Your task to perform on an android device: Open the map Image 0: 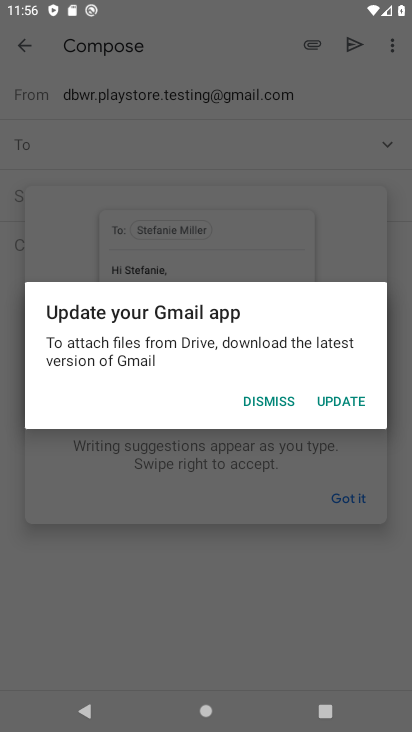
Step 0: click (349, 495)
Your task to perform on an android device: Open the map Image 1: 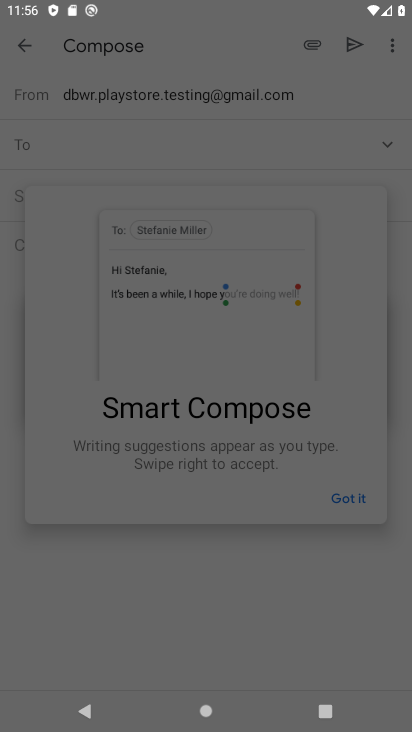
Step 1: press back button
Your task to perform on an android device: Open the map Image 2: 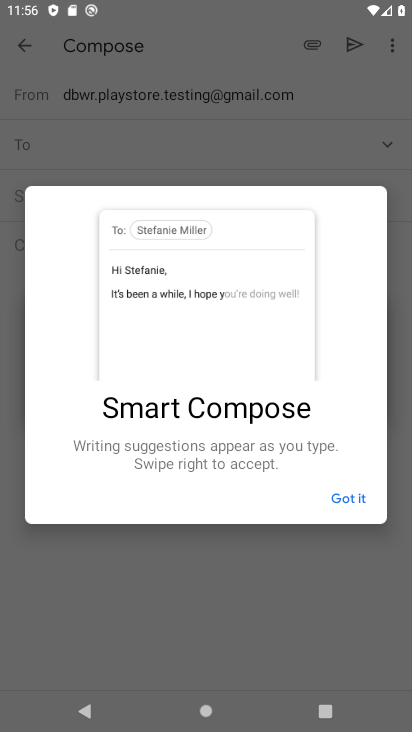
Step 2: click (343, 498)
Your task to perform on an android device: Open the map Image 3: 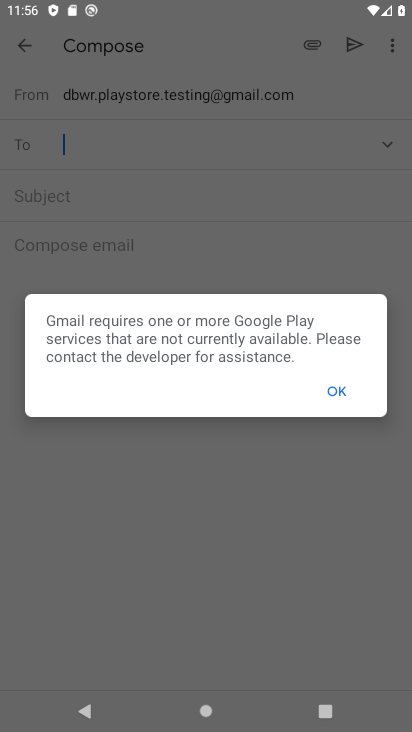
Step 3: click (335, 392)
Your task to perform on an android device: Open the map Image 4: 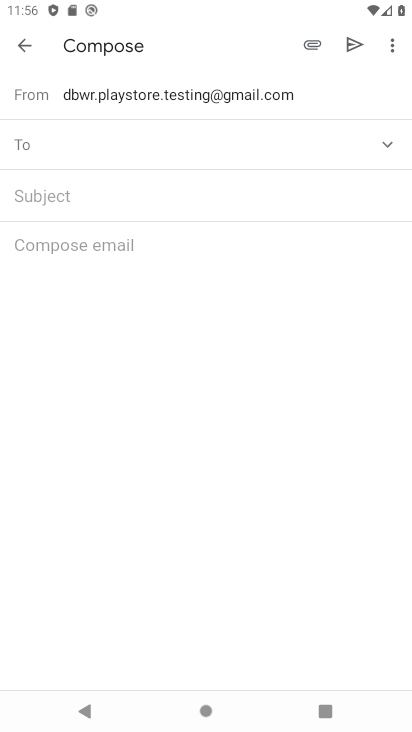
Step 4: click (18, 42)
Your task to perform on an android device: Open the map Image 5: 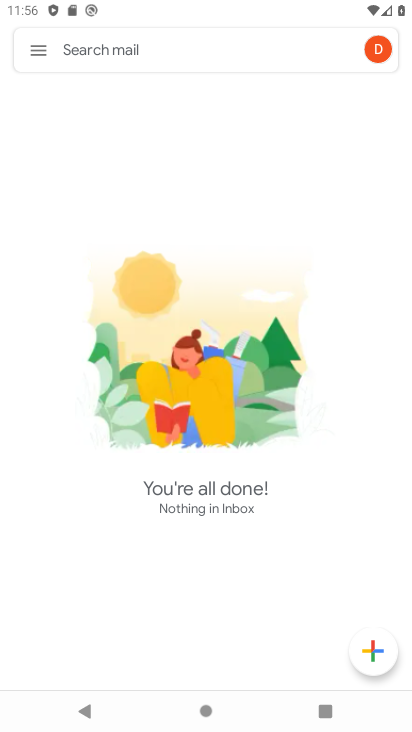
Step 5: press home button
Your task to perform on an android device: Open the map Image 6: 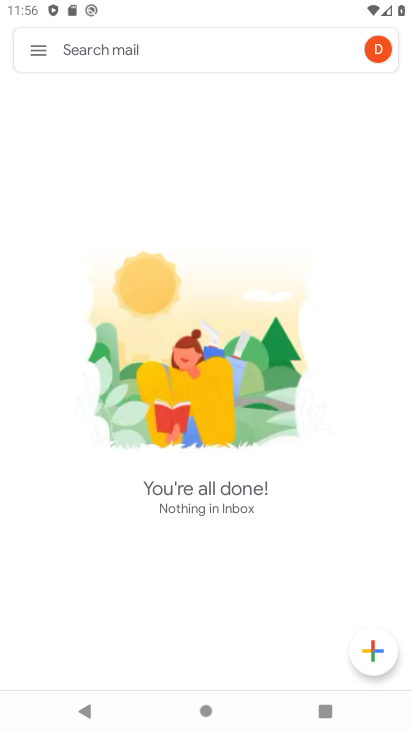
Step 6: press home button
Your task to perform on an android device: Open the map Image 7: 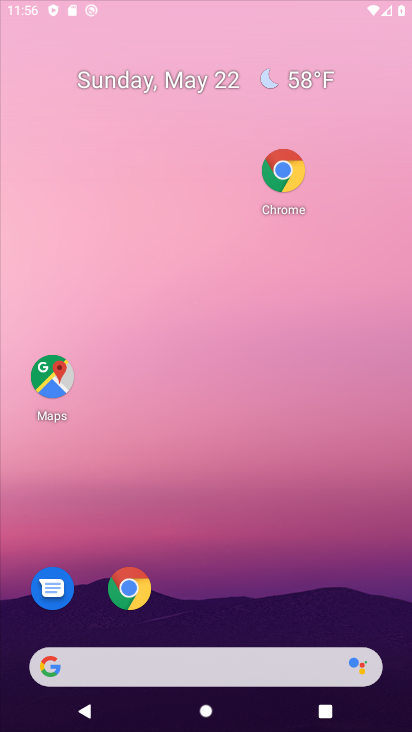
Step 7: press home button
Your task to perform on an android device: Open the map Image 8: 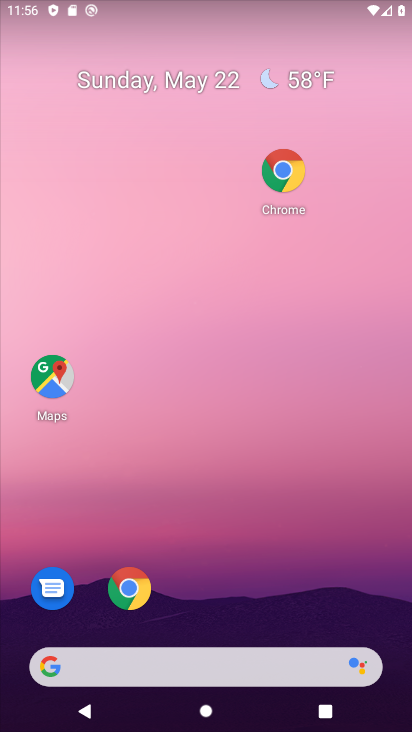
Step 8: drag from (268, 640) to (204, 76)
Your task to perform on an android device: Open the map Image 9: 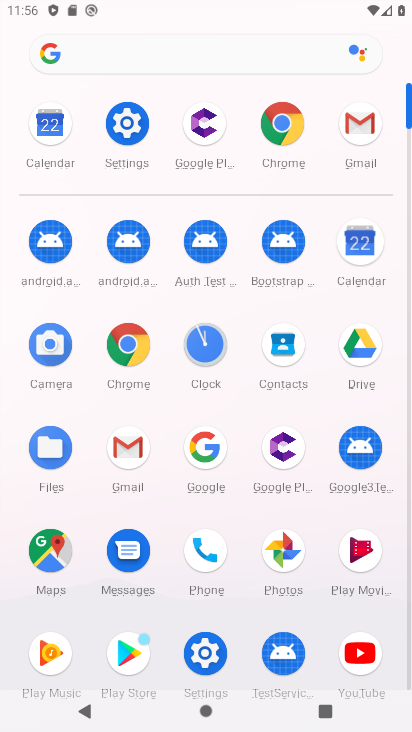
Step 9: click (57, 548)
Your task to perform on an android device: Open the map Image 10: 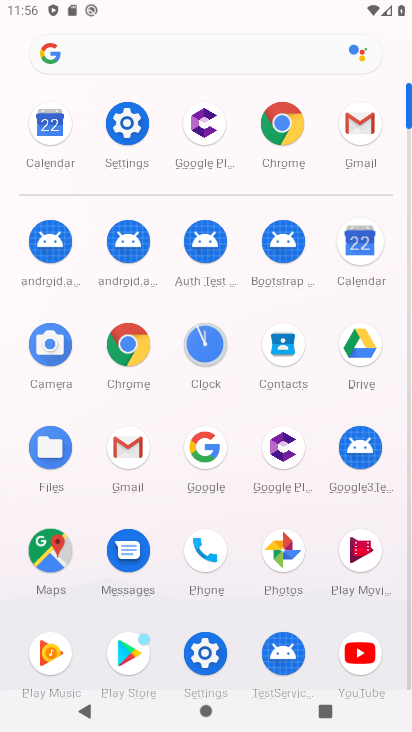
Step 10: click (56, 547)
Your task to perform on an android device: Open the map Image 11: 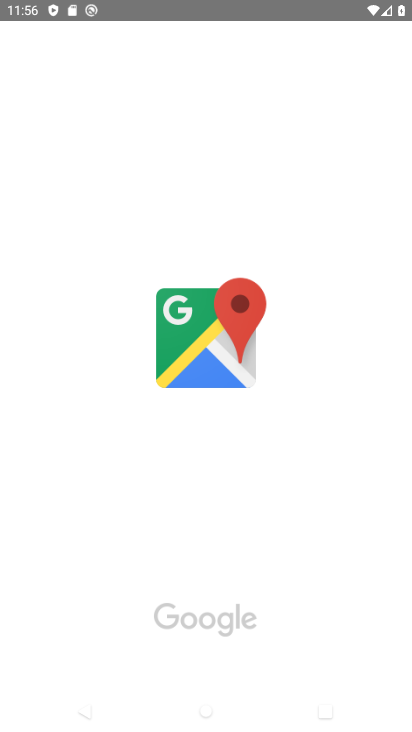
Step 11: click (56, 547)
Your task to perform on an android device: Open the map Image 12: 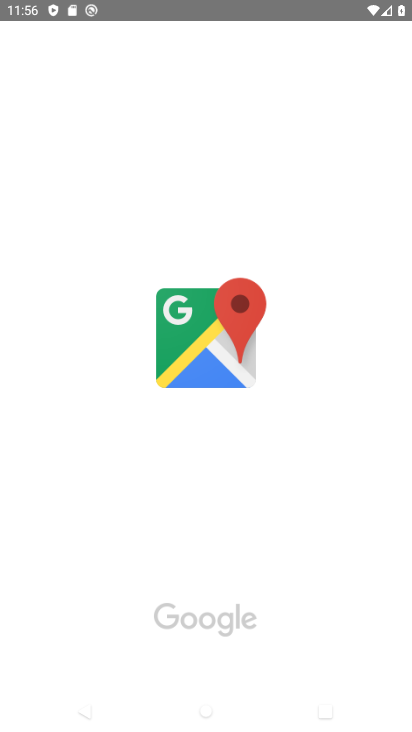
Step 12: click (56, 547)
Your task to perform on an android device: Open the map Image 13: 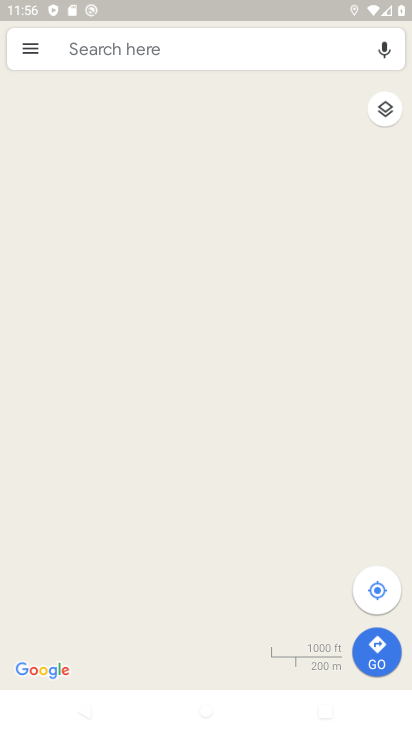
Step 13: click (90, 38)
Your task to perform on an android device: Open the map Image 14: 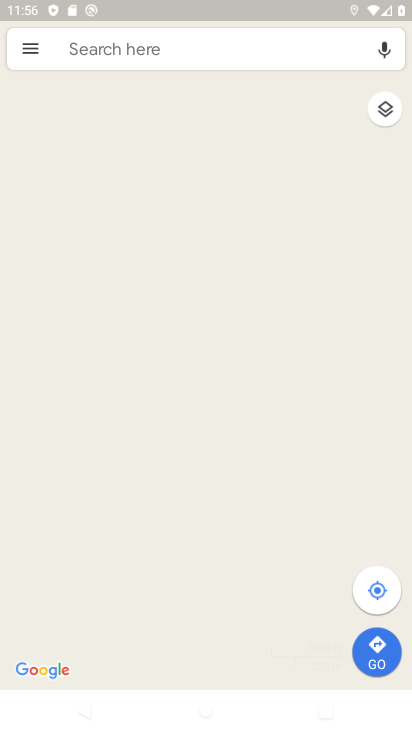
Step 14: click (90, 38)
Your task to perform on an android device: Open the map Image 15: 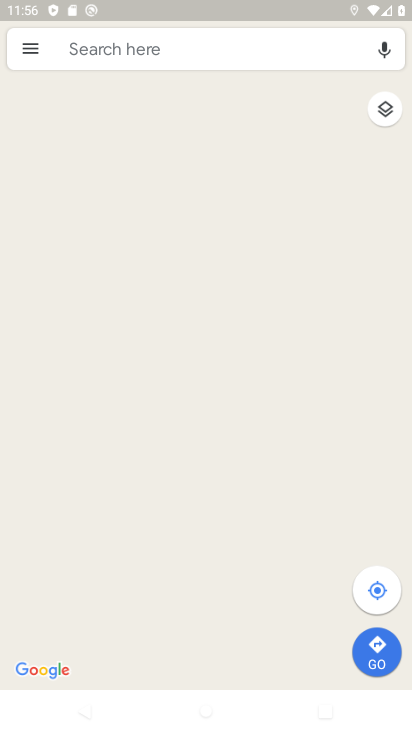
Step 15: click (96, 45)
Your task to perform on an android device: Open the map Image 16: 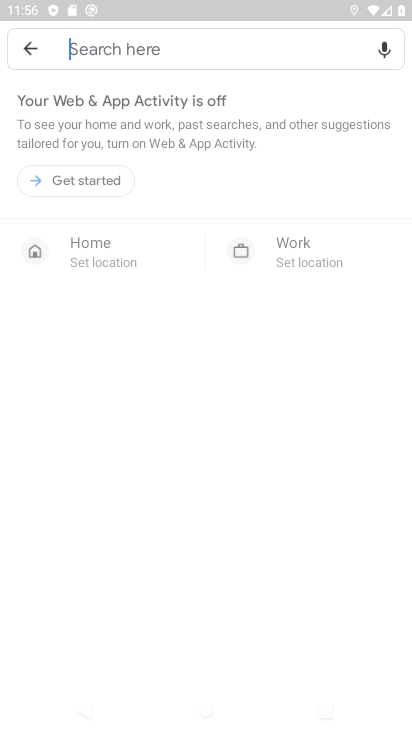
Step 16: click (100, 46)
Your task to perform on an android device: Open the map Image 17: 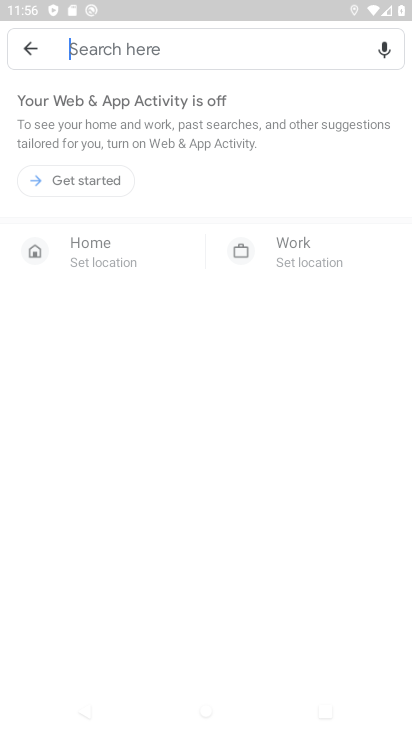
Step 17: click (100, 46)
Your task to perform on an android device: Open the map Image 18: 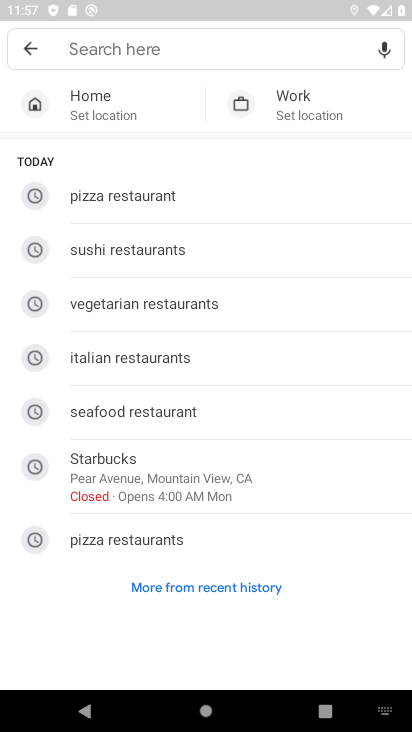
Step 18: click (26, 46)
Your task to perform on an android device: Open the map Image 19: 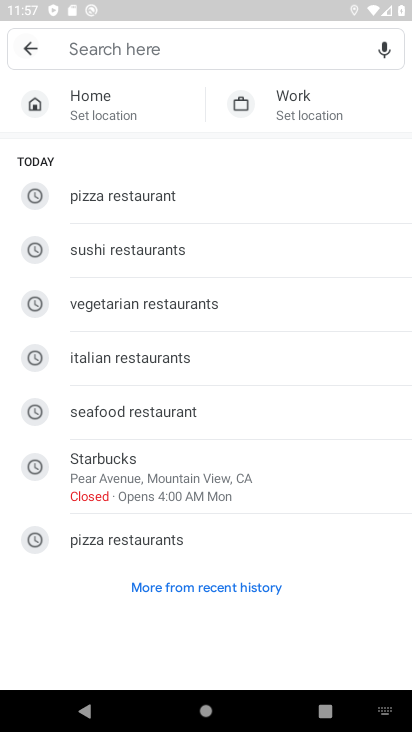
Step 19: click (26, 46)
Your task to perform on an android device: Open the map Image 20: 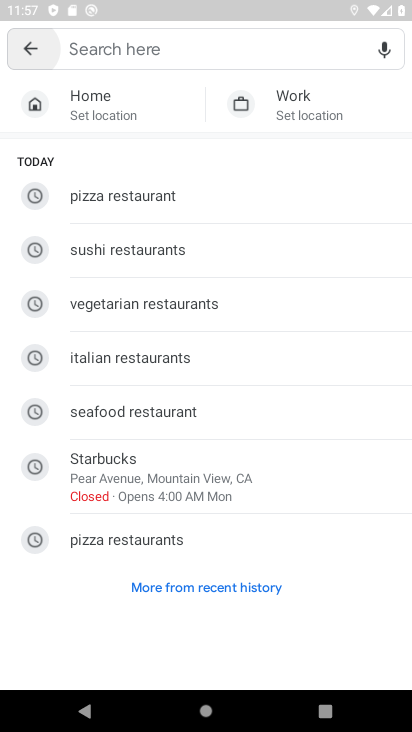
Step 20: click (26, 46)
Your task to perform on an android device: Open the map Image 21: 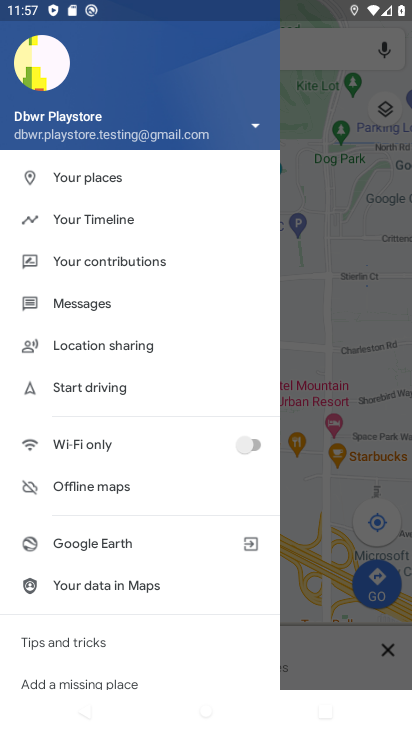
Step 21: click (336, 283)
Your task to perform on an android device: Open the map Image 22: 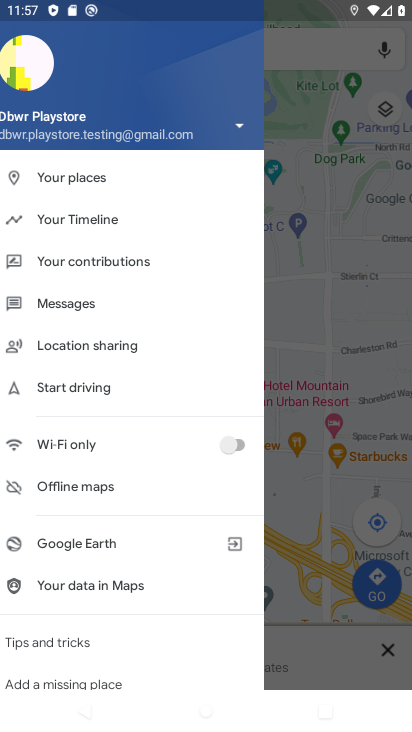
Step 22: click (344, 286)
Your task to perform on an android device: Open the map Image 23: 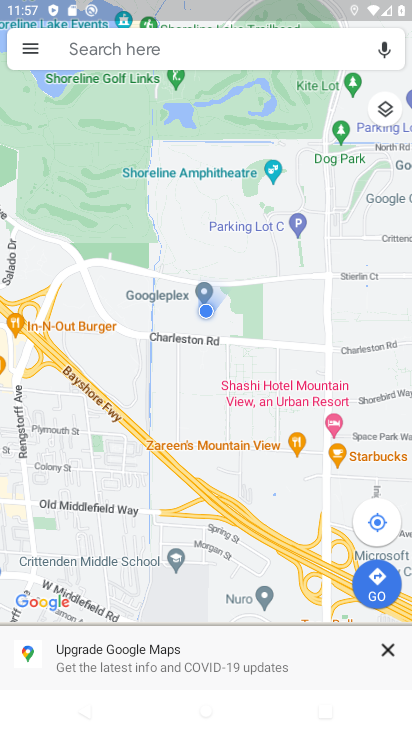
Step 23: press back button
Your task to perform on an android device: Open the map Image 24: 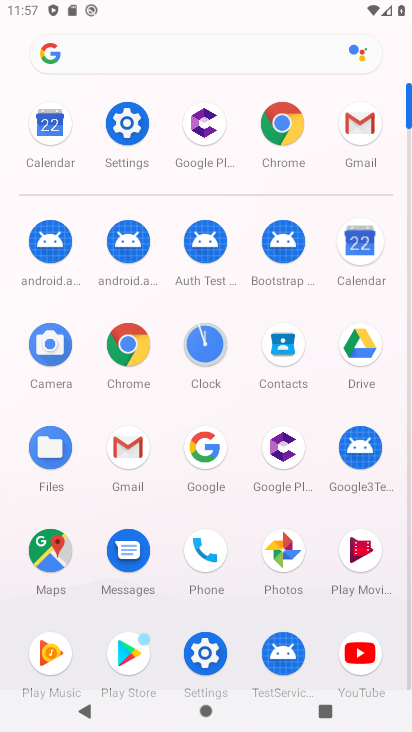
Step 24: click (45, 566)
Your task to perform on an android device: Open the map Image 25: 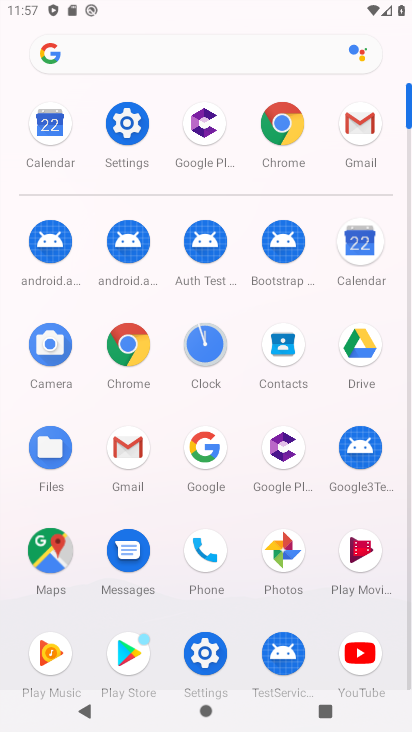
Step 25: click (45, 558)
Your task to perform on an android device: Open the map Image 26: 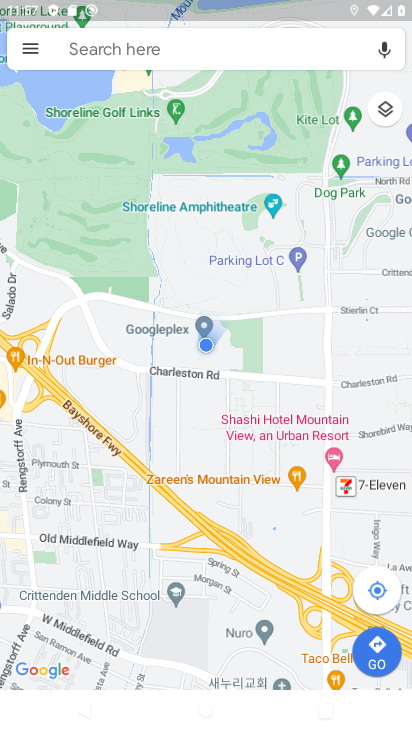
Step 26: click (61, 51)
Your task to perform on an android device: Open the map Image 27: 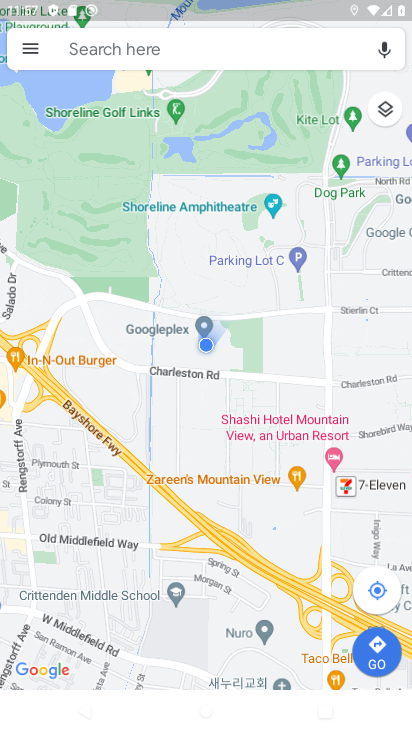
Step 27: click (61, 51)
Your task to perform on an android device: Open the map Image 28: 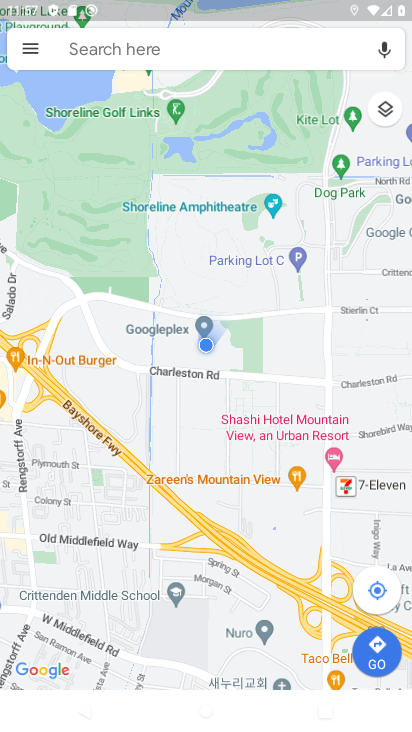
Step 28: click (71, 43)
Your task to perform on an android device: Open the map Image 29: 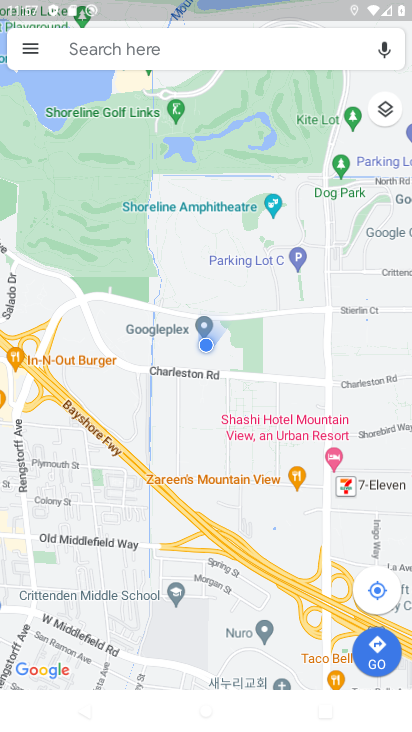
Step 29: click (71, 43)
Your task to perform on an android device: Open the map Image 30: 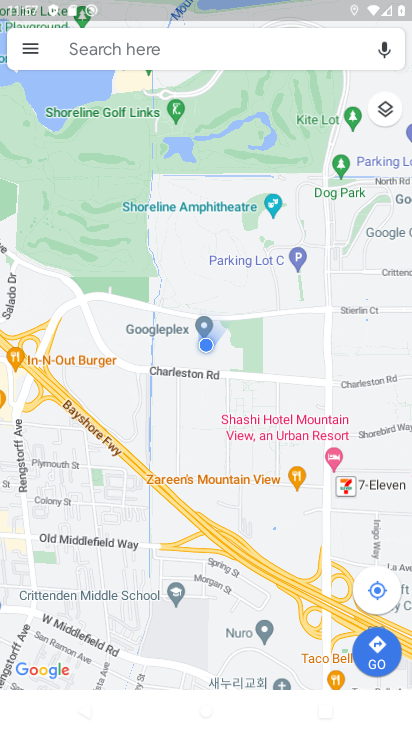
Step 30: click (71, 43)
Your task to perform on an android device: Open the map Image 31: 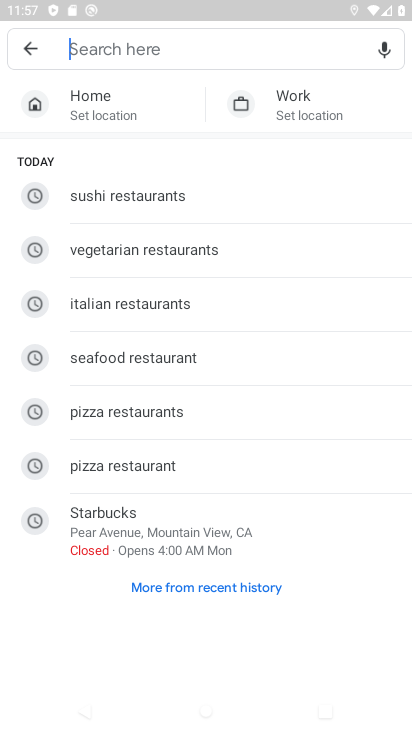
Step 31: click (75, 48)
Your task to perform on an android device: Open the map Image 32: 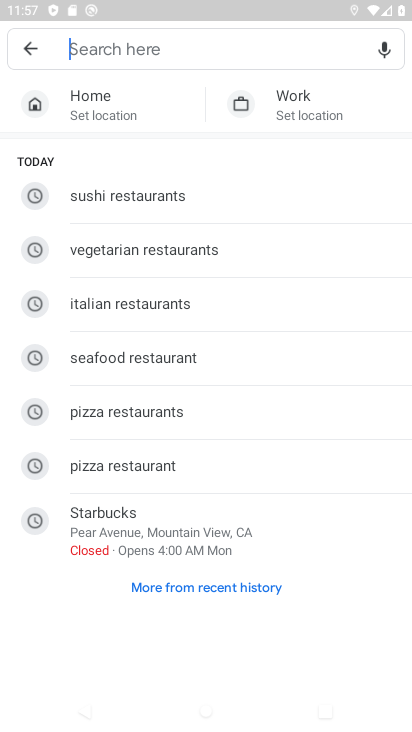
Step 32: click (78, 54)
Your task to perform on an android device: Open the map Image 33: 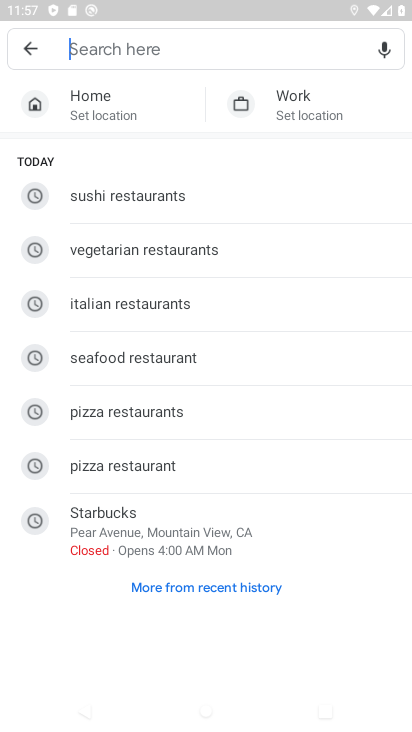
Step 33: click (79, 56)
Your task to perform on an android device: Open the map Image 34: 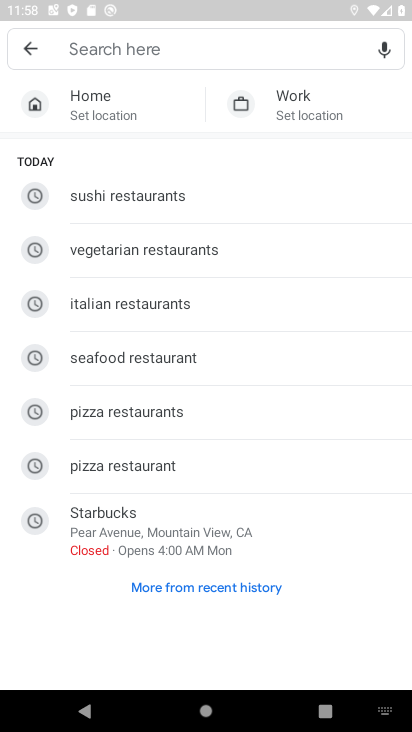
Step 34: click (76, 50)
Your task to perform on an android device: Open the map Image 35: 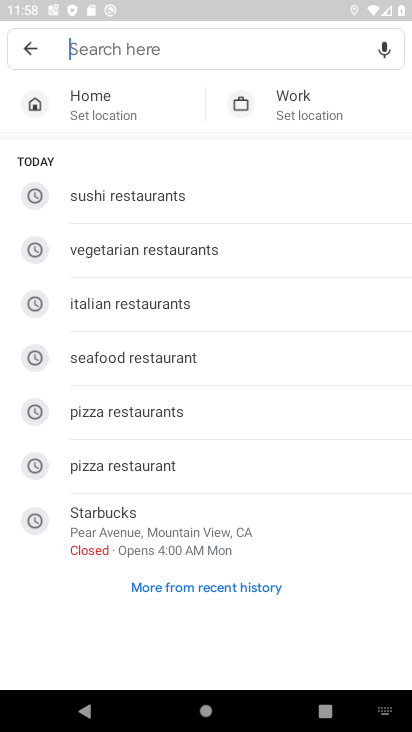
Step 35: click (22, 51)
Your task to perform on an android device: Open the map Image 36: 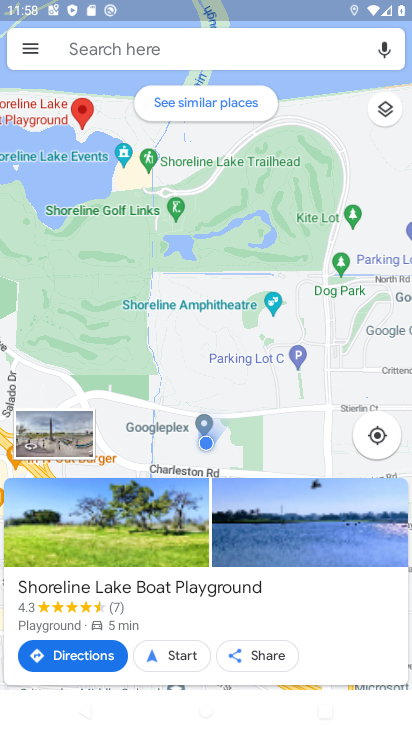
Step 36: click (81, 52)
Your task to perform on an android device: Open the map Image 37: 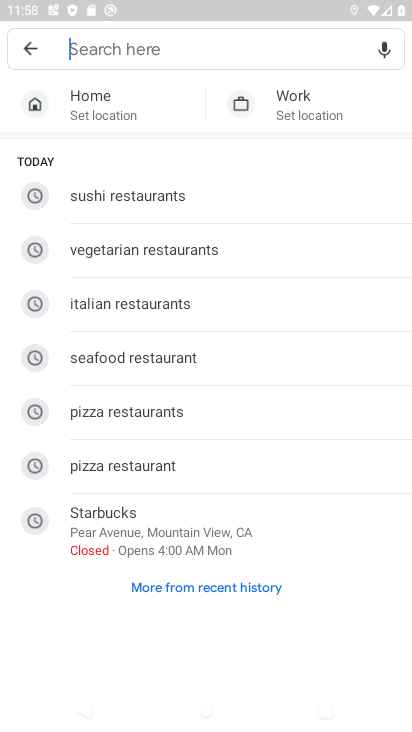
Step 37: task complete